Your task to perform on an android device: What's on my calendar today? Image 0: 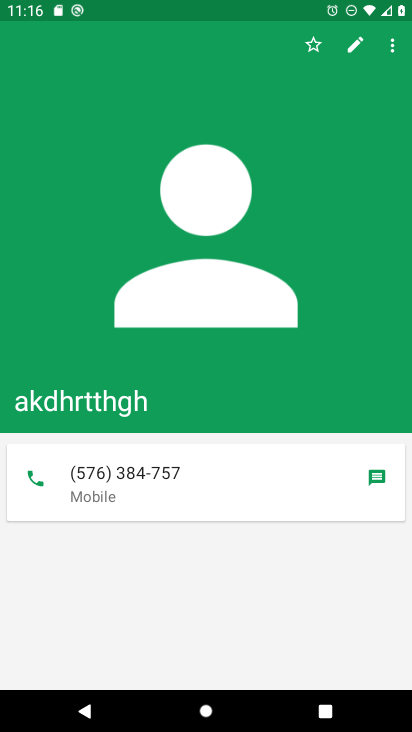
Step 0: press home button
Your task to perform on an android device: What's on my calendar today? Image 1: 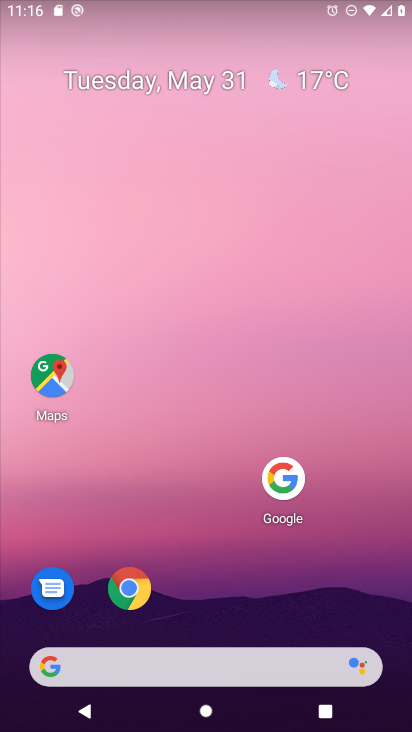
Step 1: drag from (155, 669) to (308, 32)
Your task to perform on an android device: What's on my calendar today? Image 2: 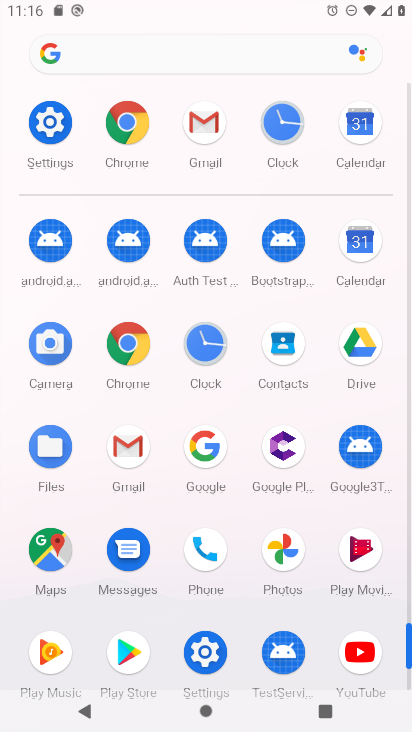
Step 2: click (360, 124)
Your task to perform on an android device: What's on my calendar today? Image 3: 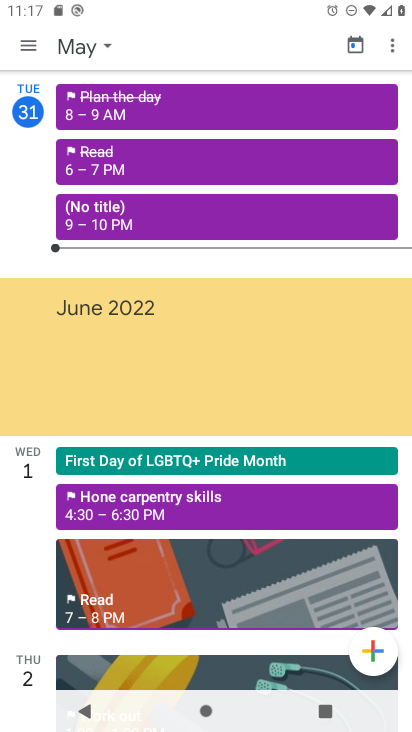
Step 3: click (107, 160)
Your task to perform on an android device: What's on my calendar today? Image 4: 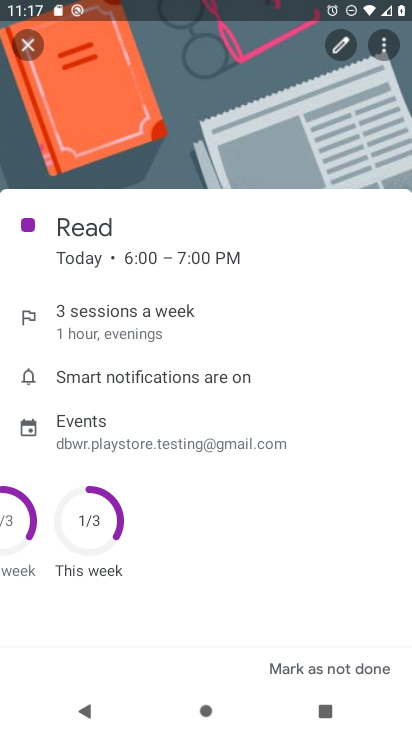
Step 4: task complete